Your task to perform on an android device: Open CNN.com Image 0: 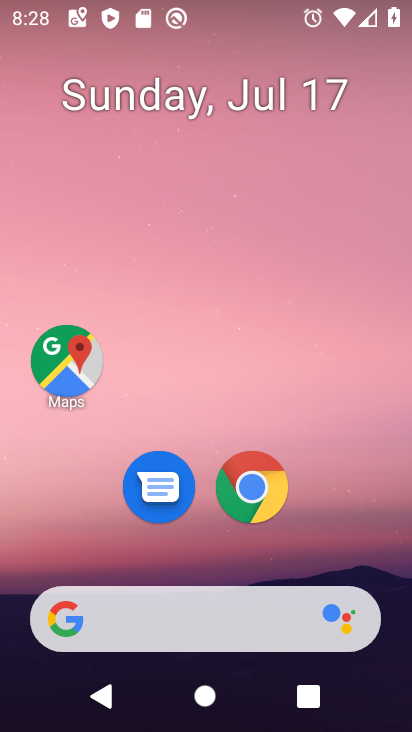
Step 0: click (261, 500)
Your task to perform on an android device: Open CNN.com Image 1: 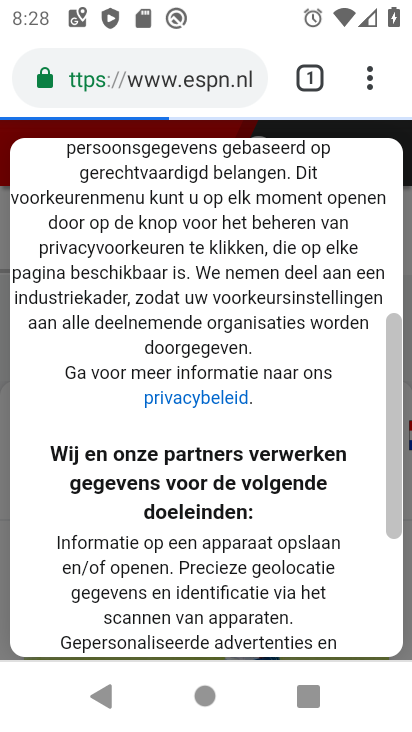
Step 1: click (305, 77)
Your task to perform on an android device: Open CNN.com Image 2: 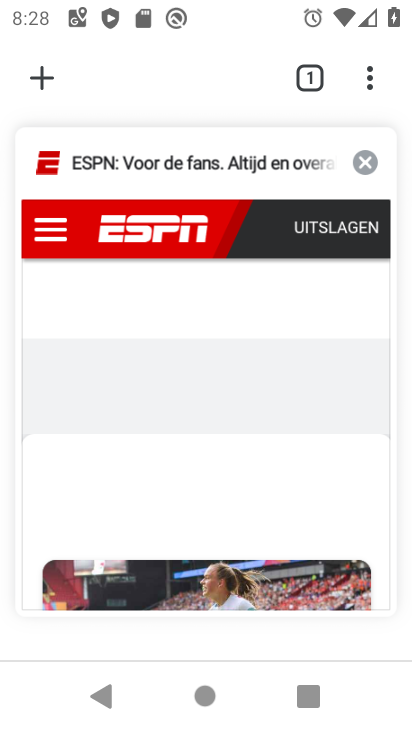
Step 2: click (63, 68)
Your task to perform on an android device: Open CNN.com Image 3: 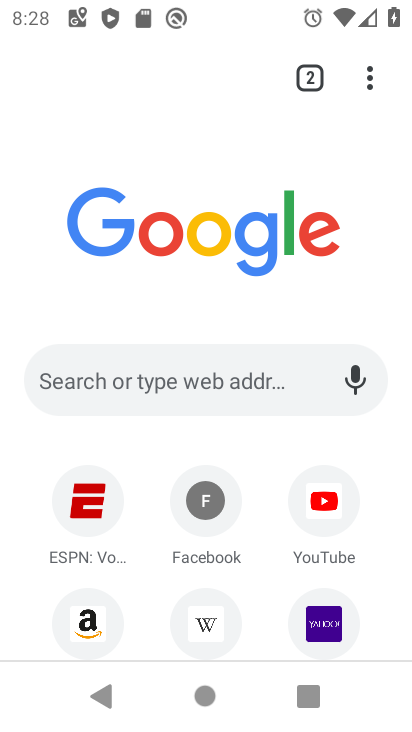
Step 3: click (201, 572)
Your task to perform on an android device: Open CNN.com Image 4: 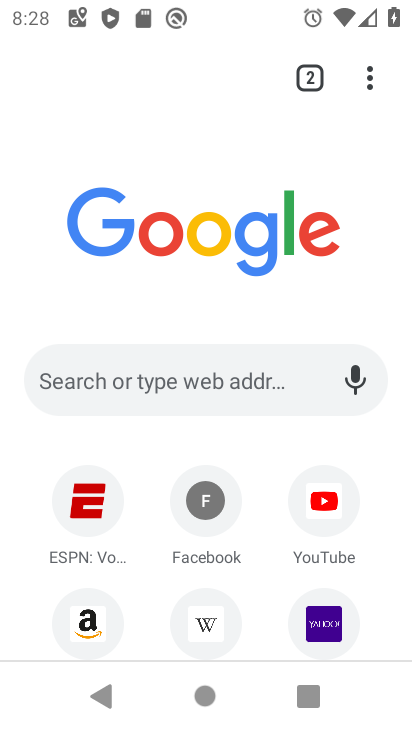
Step 4: click (169, 370)
Your task to perform on an android device: Open CNN.com Image 5: 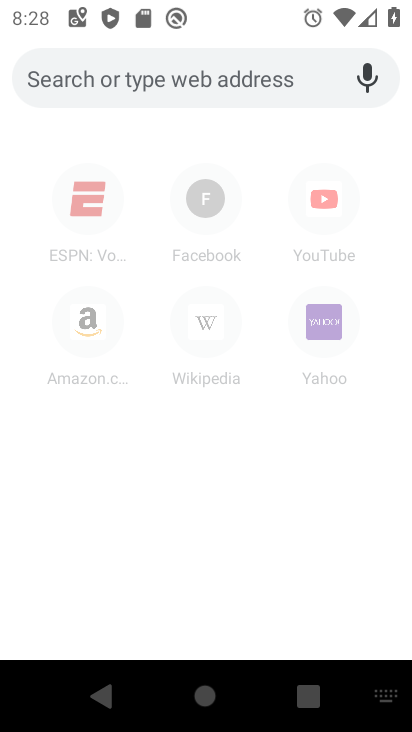
Step 5: type "cnn.com"
Your task to perform on an android device: Open CNN.com Image 6: 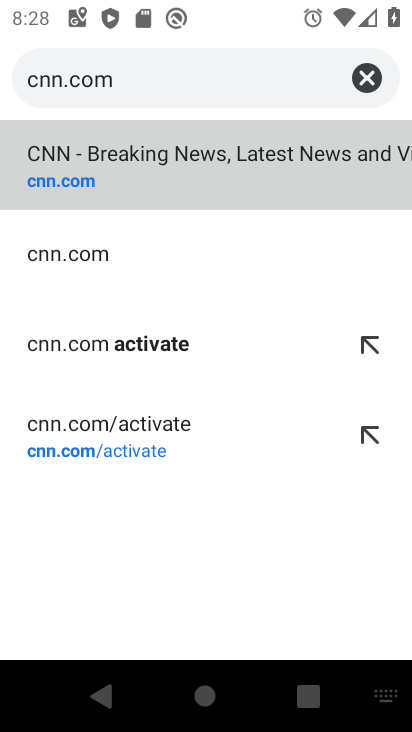
Step 6: click (292, 194)
Your task to perform on an android device: Open CNN.com Image 7: 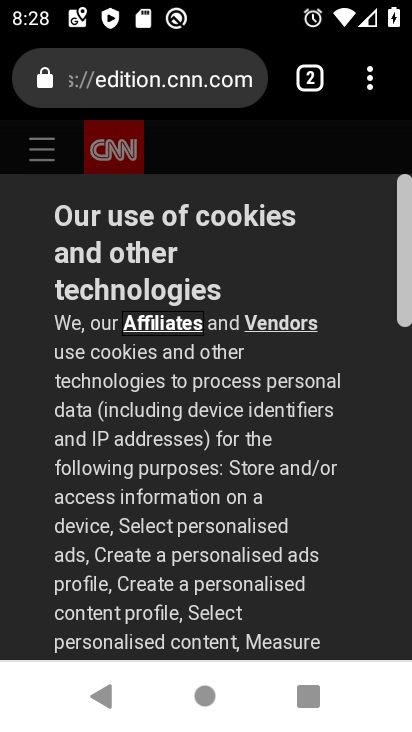
Step 7: task complete